Your task to perform on an android device: check out phone information Image 0: 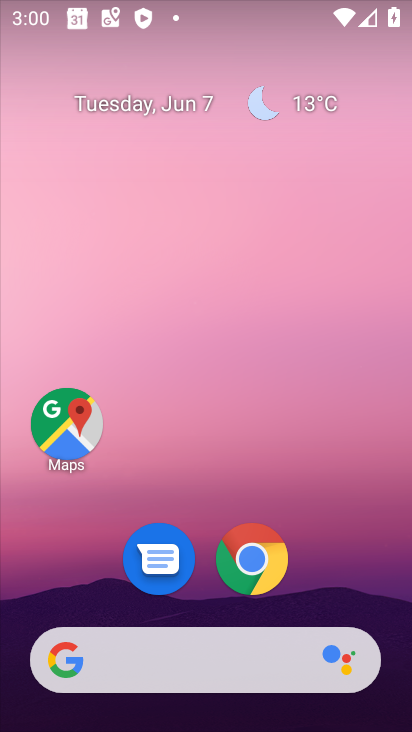
Step 0: drag from (338, 553) to (308, 2)
Your task to perform on an android device: check out phone information Image 1: 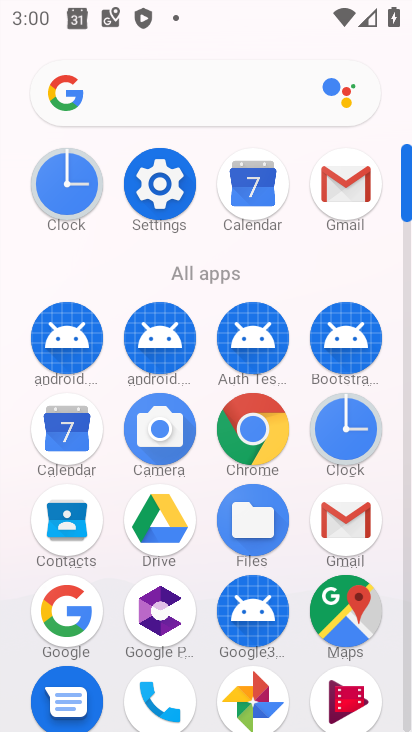
Step 1: click (159, 185)
Your task to perform on an android device: check out phone information Image 2: 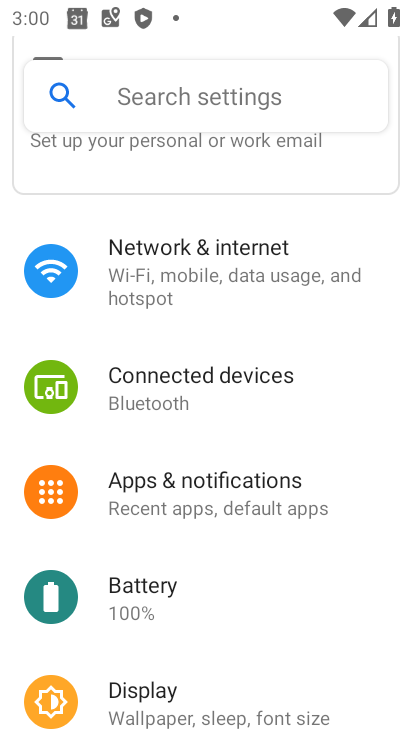
Step 2: drag from (184, 432) to (208, 299)
Your task to perform on an android device: check out phone information Image 3: 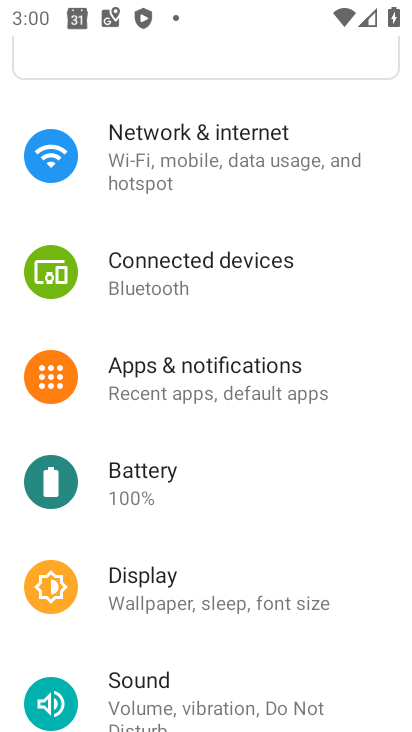
Step 3: drag from (207, 506) to (248, 346)
Your task to perform on an android device: check out phone information Image 4: 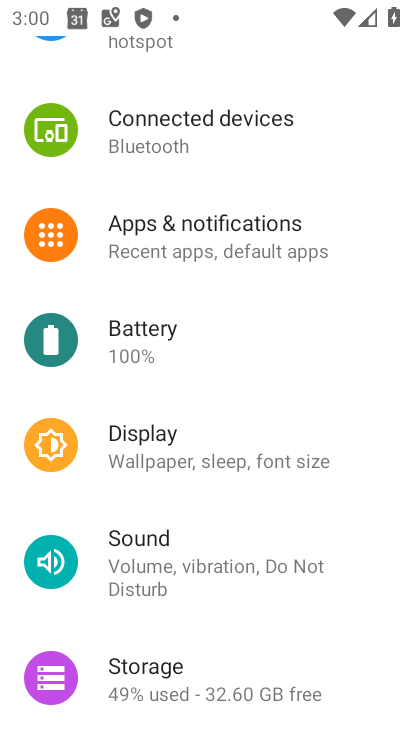
Step 4: drag from (182, 489) to (282, 293)
Your task to perform on an android device: check out phone information Image 5: 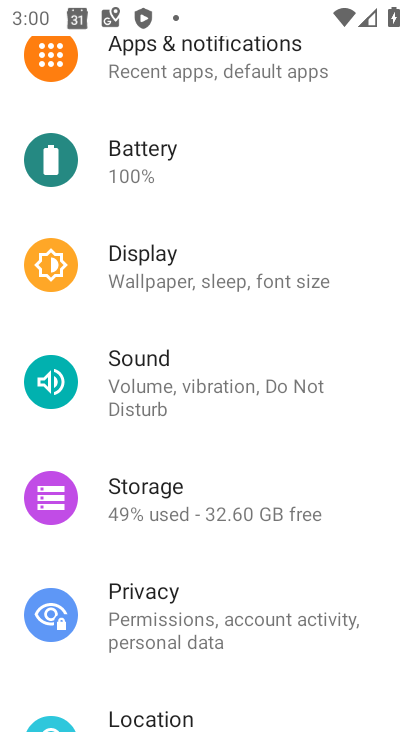
Step 5: drag from (165, 442) to (247, 276)
Your task to perform on an android device: check out phone information Image 6: 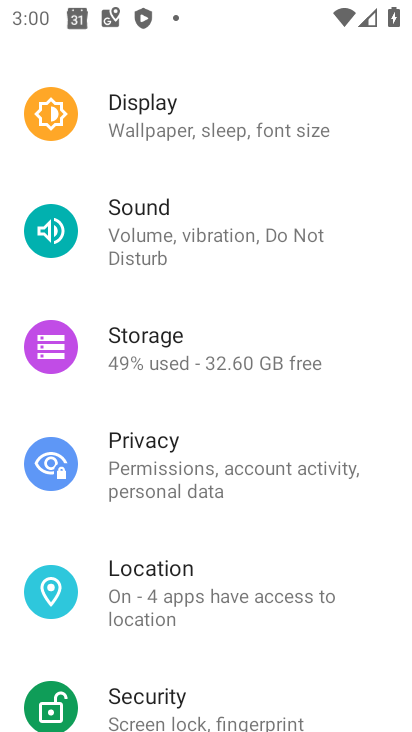
Step 6: drag from (193, 417) to (267, 212)
Your task to perform on an android device: check out phone information Image 7: 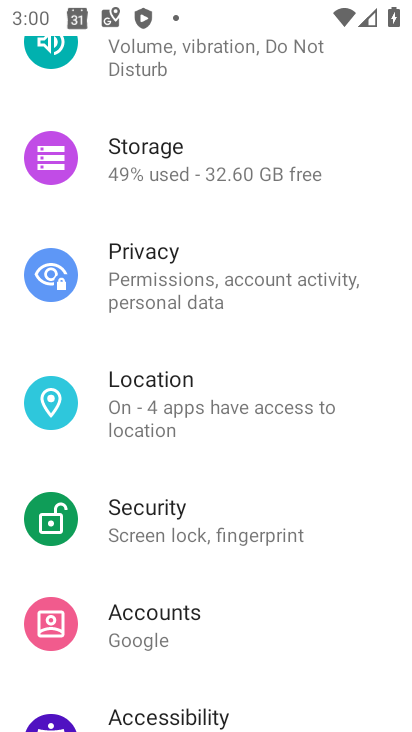
Step 7: drag from (175, 470) to (269, 189)
Your task to perform on an android device: check out phone information Image 8: 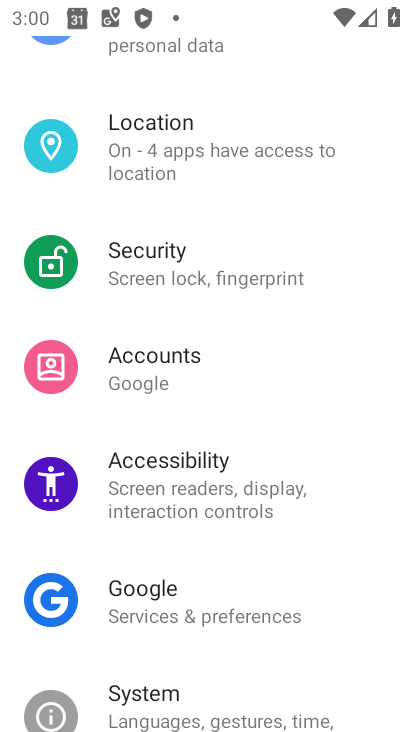
Step 8: drag from (203, 538) to (300, 332)
Your task to perform on an android device: check out phone information Image 9: 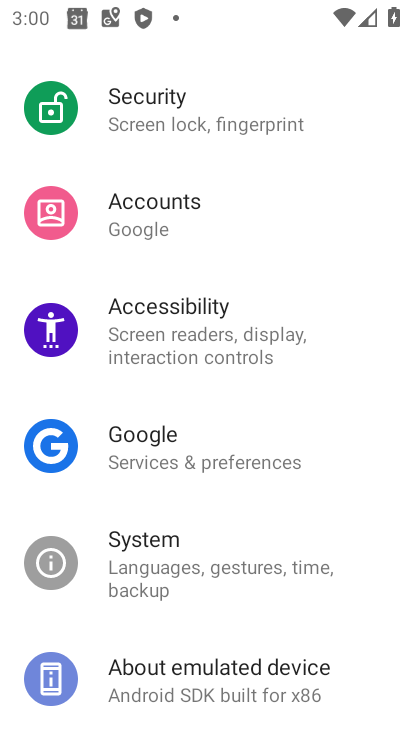
Step 9: click (160, 653)
Your task to perform on an android device: check out phone information Image 10: 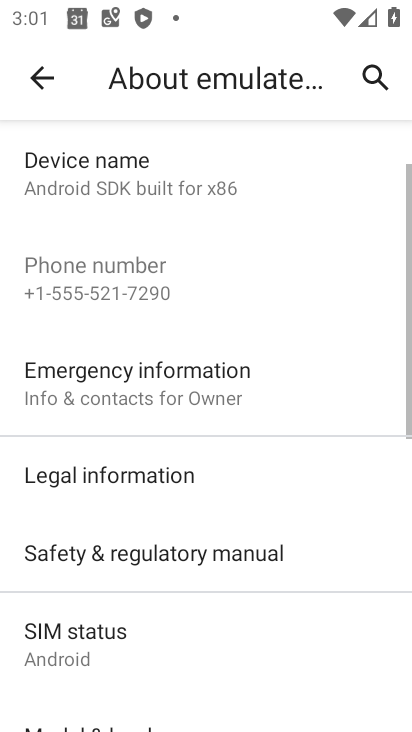
Step 10: task complete